Your task to perform on an android device: toggle airplane mode Image 0: 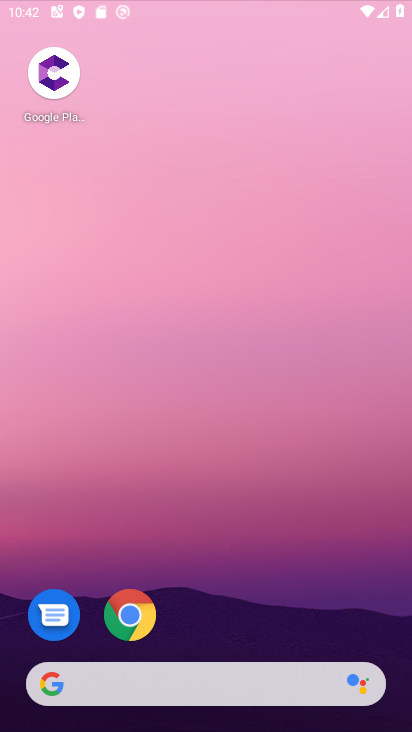
Step 0: press home button
Your task to perform on an android device: toggle airplane mode Image 1: 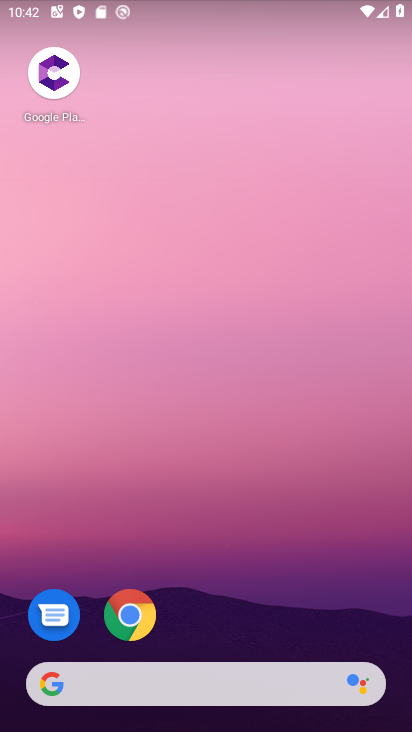
Step 1: drag from (287, 714) to (219, 189)
Your task to perform on an android device: toggle airplane mode Image 2: 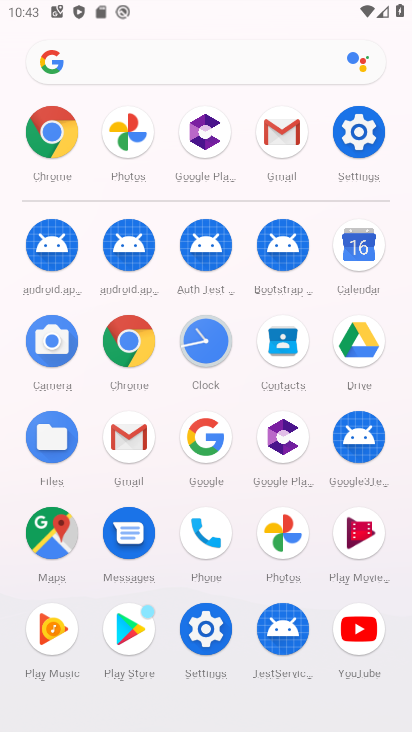
Step 2: click (358, 146)
Your task to perform on an android device: toggle airplane mode Image 3: 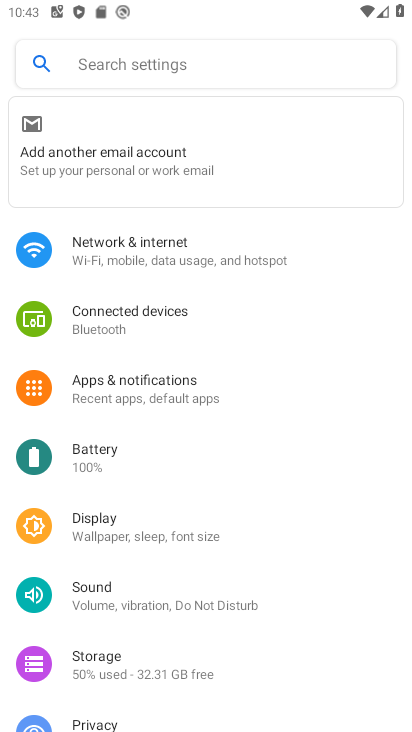
Step 3: click (136, 250)
Your task to perform on an android device: toggle airplane mode Image 4: 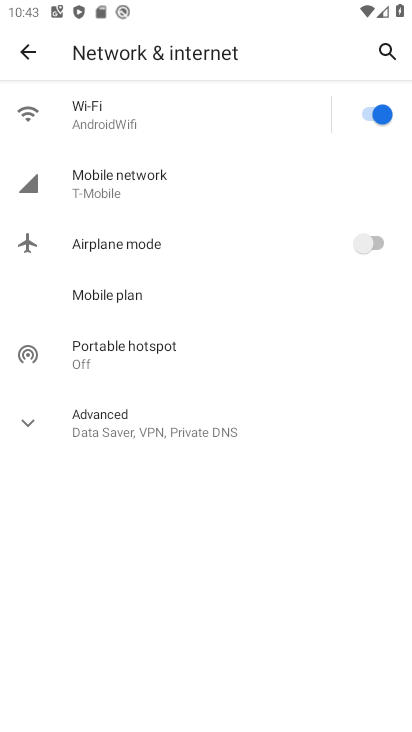
Step 4: click (204, 236)
Your task to perform on an android device: toggle airplane mode Image 5: 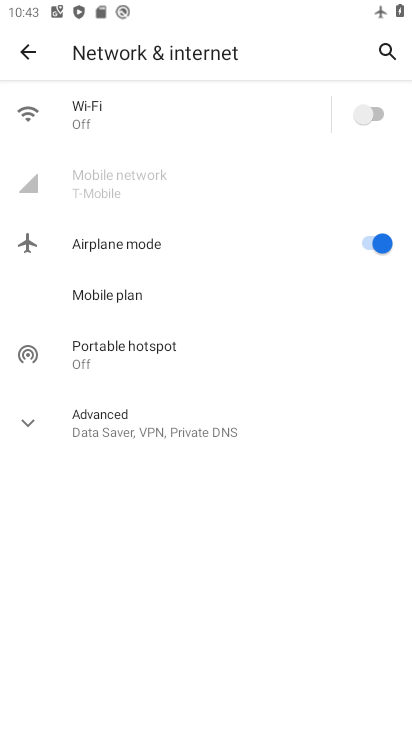
Step 5: click (202, 233)
Your task to perform on an android device: toggle airplane mode Image 6: 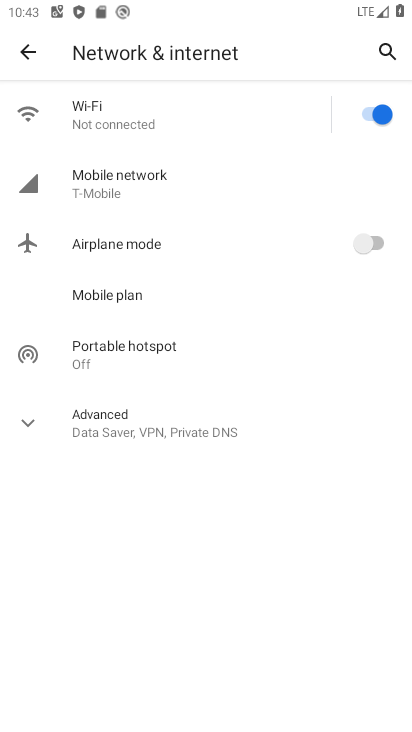
Step 6: task complete